Your task to perform on an android device: open a bookmark in the chrome app Image 0: 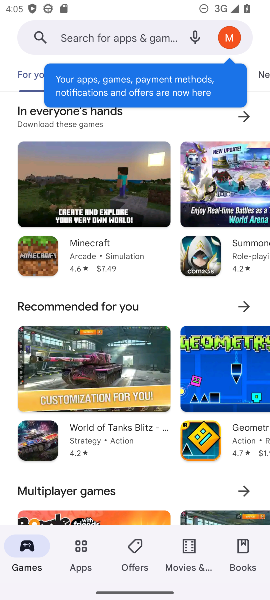
Step 0: press home button
Your task to perform on an android device: open a bookmark in the chrome app Image 1: 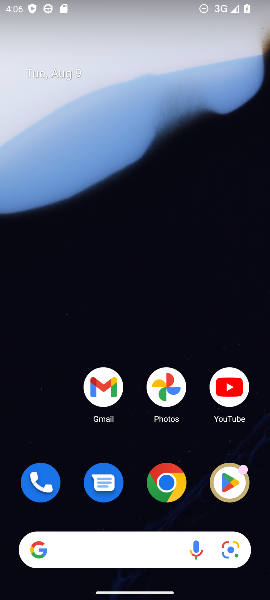
Step 1: click (159, 478)
Your task to perform on an android device: open a bookmark in the chrome app Image 2: 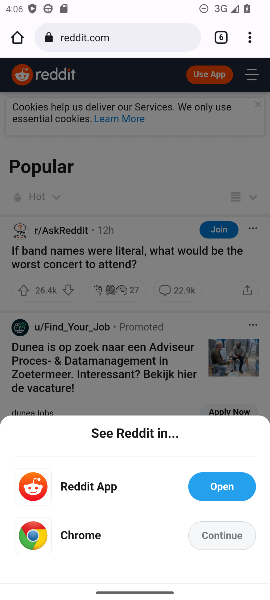
Step 2: click (240, 536)
Your task to perform on an android device: open a bookmark in the chrome app Image 3: 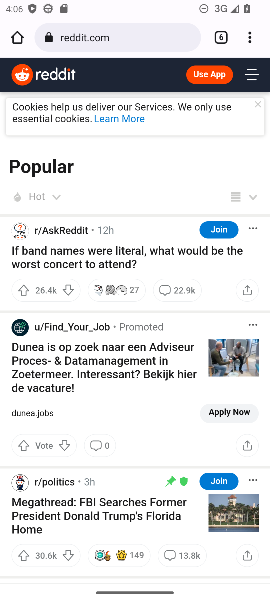
Step 3: click (219, 39)
Your task to perform on an android device: open a bookmark in the chrome app Image 4: 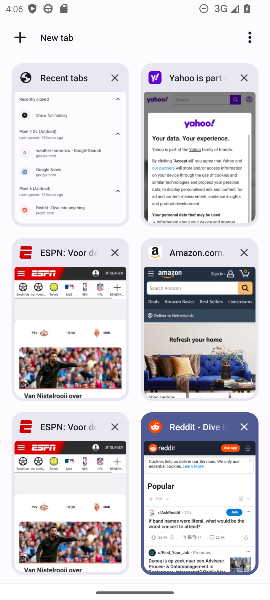
Step 4: click (249, 36)
Your task to perform on an android device: open a bookmark in the chrome app Image 5: 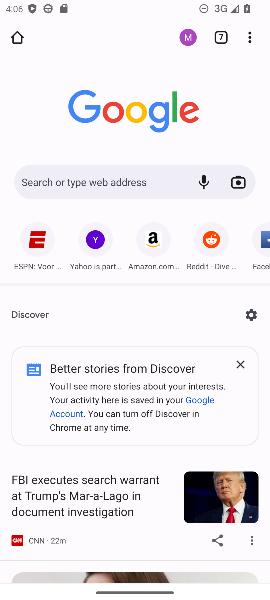
Step 5: click (252, 35)
Your task to perform on an android device: open a bookmark in the chrome app Image 6: 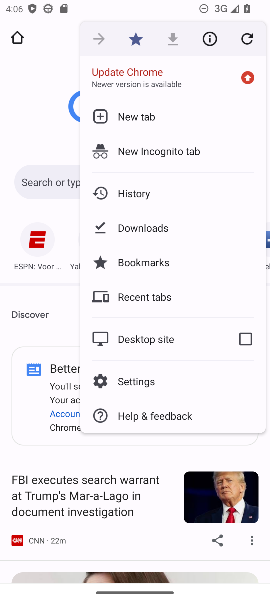
Step 6: click (181, 266)
Your task to perform on an android device: open a bookmark in the chrome app Image 7: 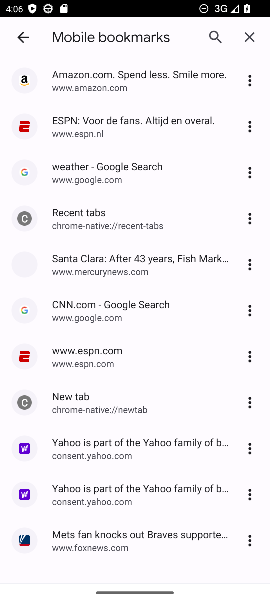
Step 7: click (125, 172)
Your task to perform on an android device: open a bookmark in the chrome app Image 8: 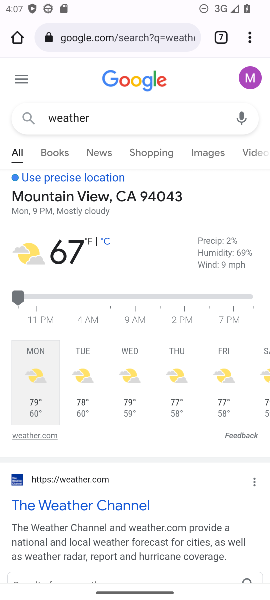
Step 8: click (251, 40)
Your task to perform on an android device: open a bookmark in the chrome app Image 9: 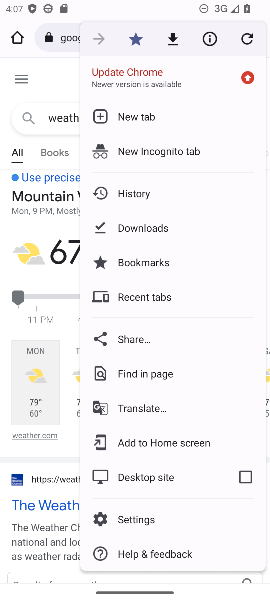
Step 9: click (159, 253)
Your task to perform on an android device: open a bookmark in the chrome app Image 10: 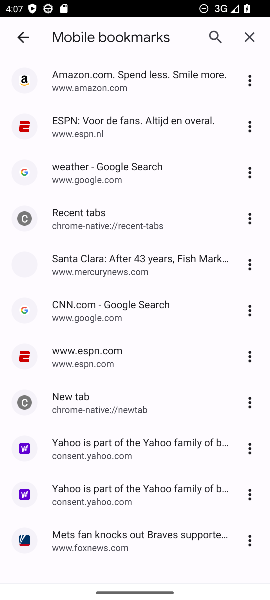
Step 10: click (111, 132)
Your task to perform on an android device: open a bookmark in the chrome app Image 11: 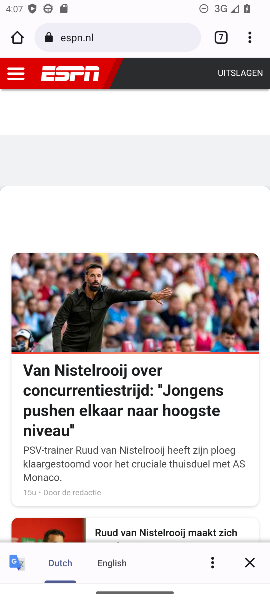
Step 11: task complete